Your task to perform on an android device: turn off sleep mode Image 0: 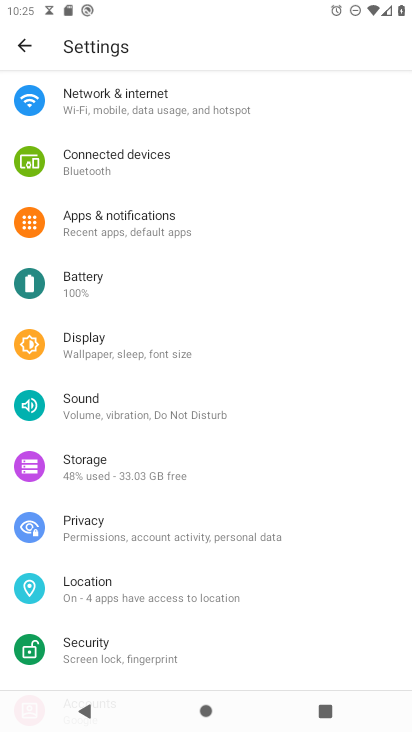
Step 0: click (133, 358)
Your task to perform on an android device: turn off sleep mode Image 1: 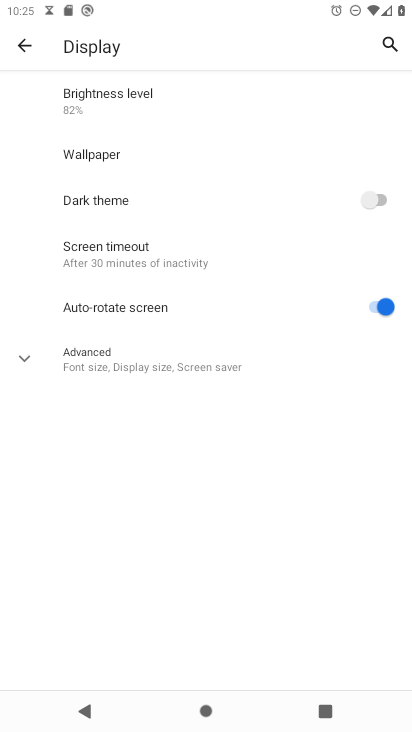
Step 1: click (155, 252)
Your task to perform on an android device: turn off sleep mode Image 2: 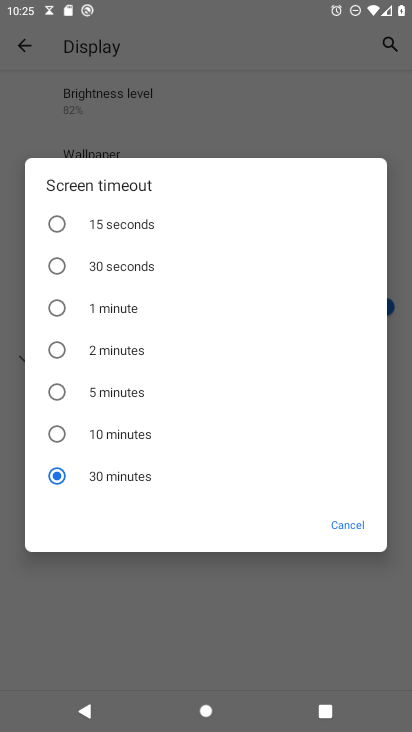
Step 2: click (353, 528)
Your task to perform on an android device: turn off sleep mode Image 3: 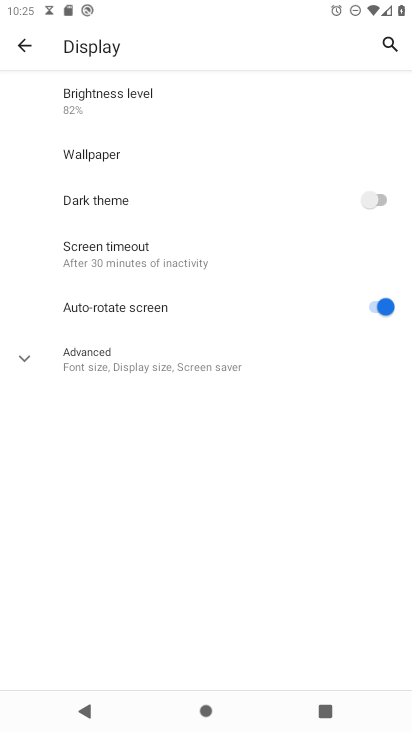
Step 3: click (163, 345)
Your task to perform on an android device: turn off sleep mode Image 4: 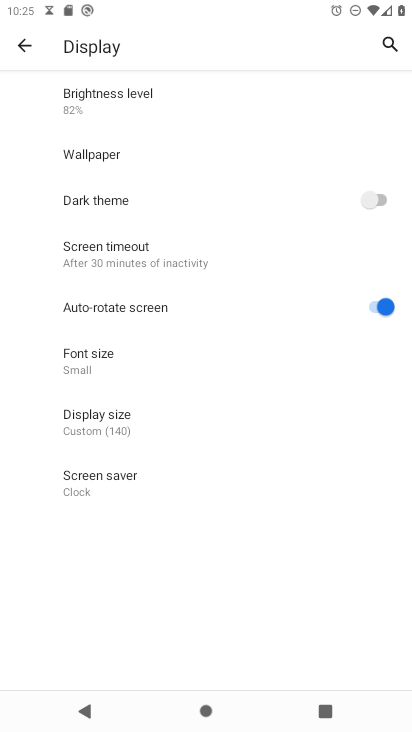
Step 4: click (139, 469)
Your task to perform on an android device: turn off sleep mode Image 5: 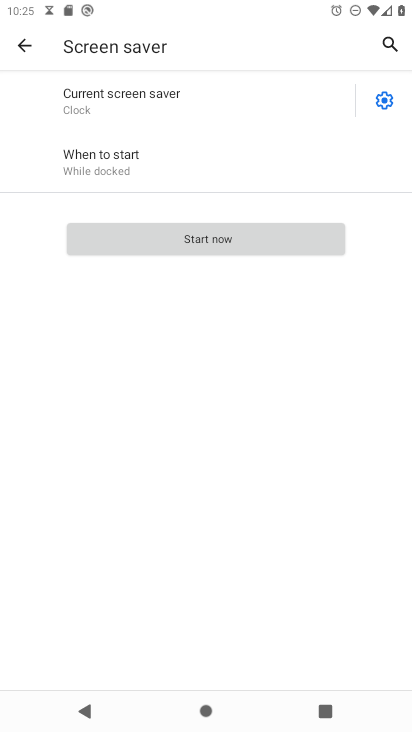
Step 5: click (379, 106)
Your task to perform on an android device: turn off sleep mode Image 6: 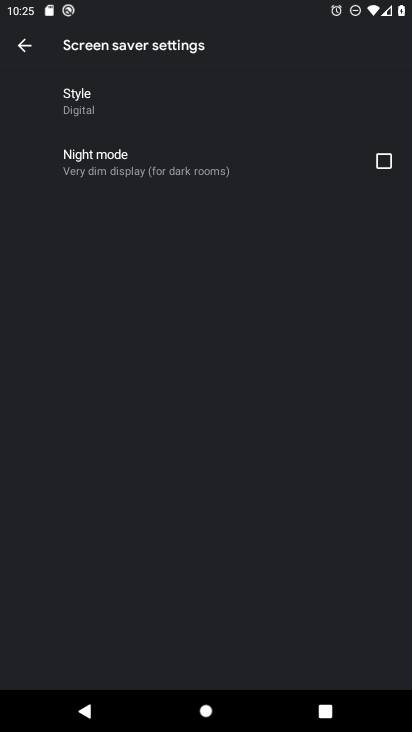
Step 6: click (34, 55)
Your task to perform on an android device: turn off sleep mode Image 7: 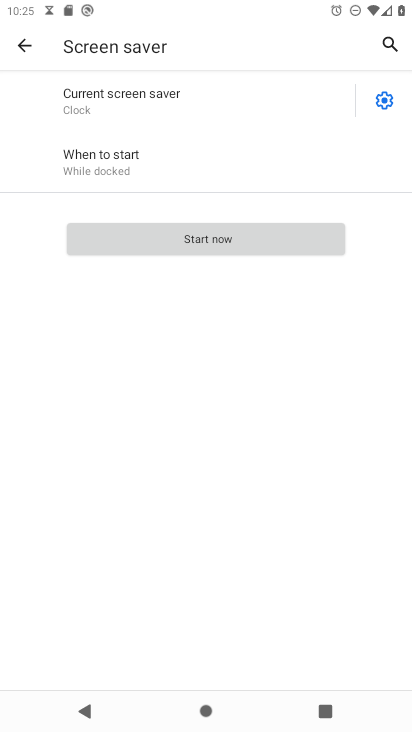
Step 7: click (377, 104)
Your task to perform on an android device: turn off sleep mode Image 8: 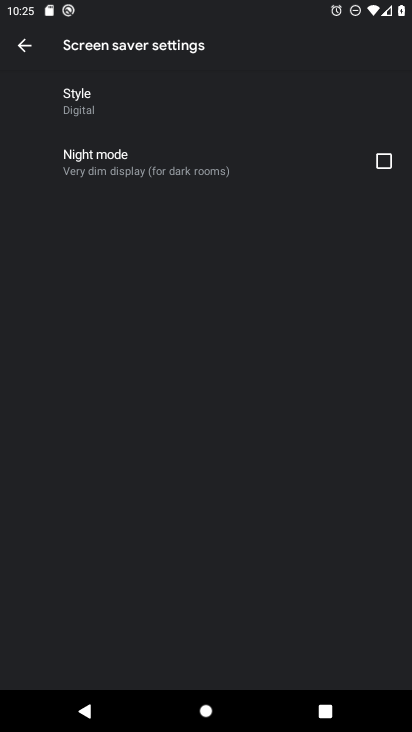
Step 8: click (380, 172)
Your task to perform on an android device: turn off sleep mode Image 9: 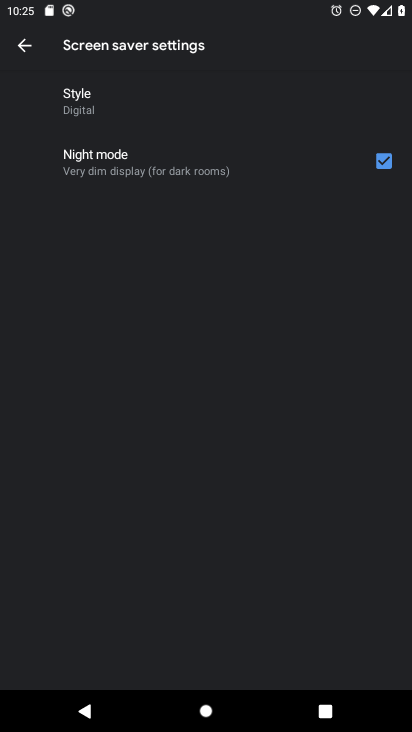
Step 9: click (27, 44)
Your task to perform on an android device: turn off sleep mode Image 10: 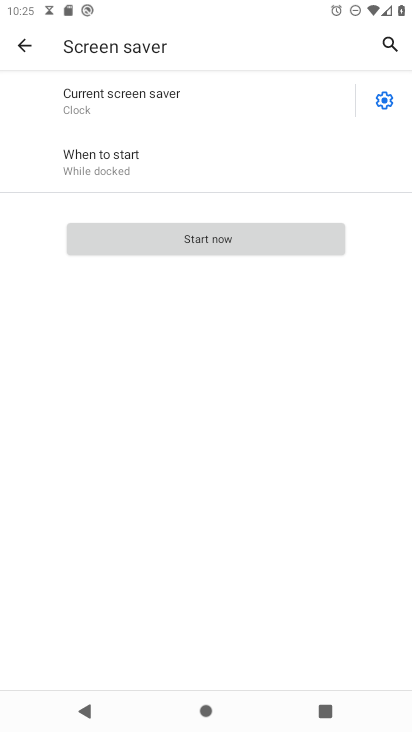
Step 10: click (390, 101)
Your task to perform on an android device: turn off sleep mode Image 11: 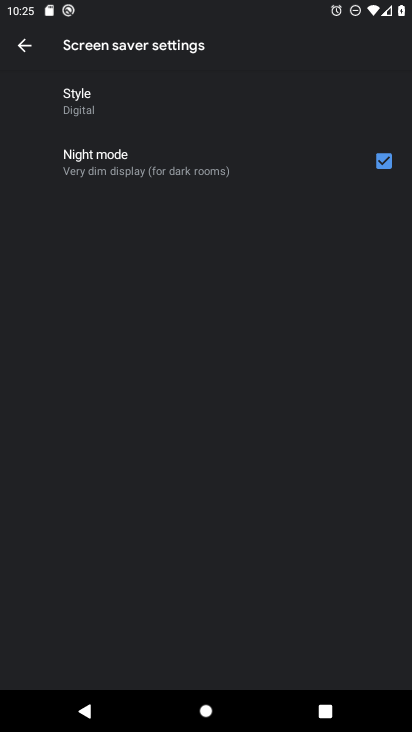
Step 11: click (387, 170)
Your task to perform on an android device: turn off sleep mode Image 12: 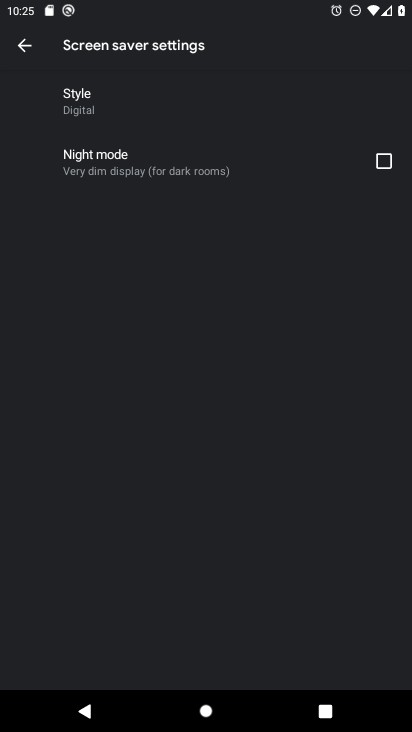
Step 12: task complete